Your task to perform on an android device: Do I have any events today? Image 0: 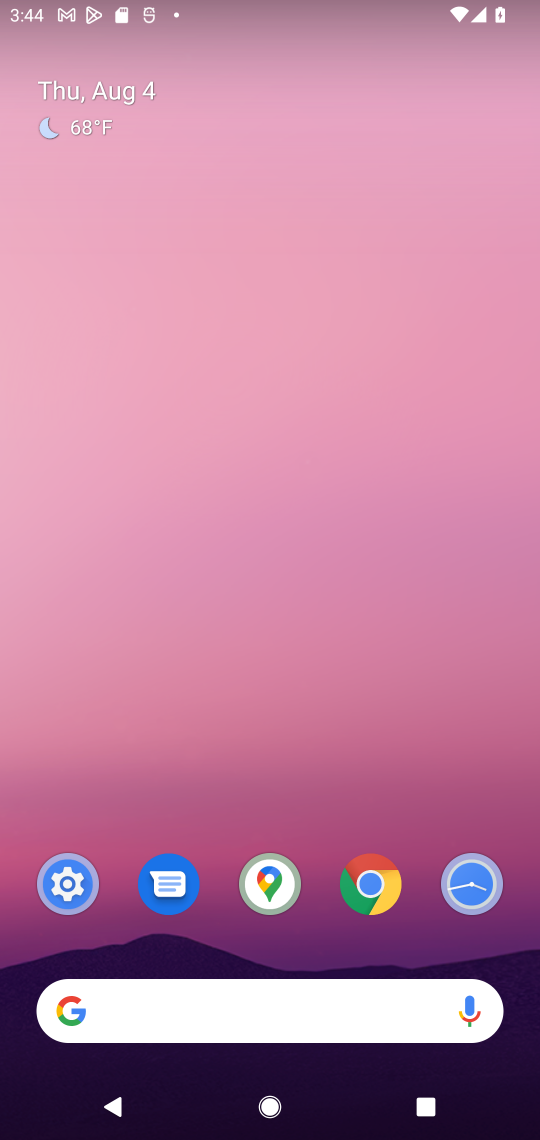
Step 0: drag from (210, 966) to (304, 176)
Your task to perform on an android device: Do I have any events today? Image 1: 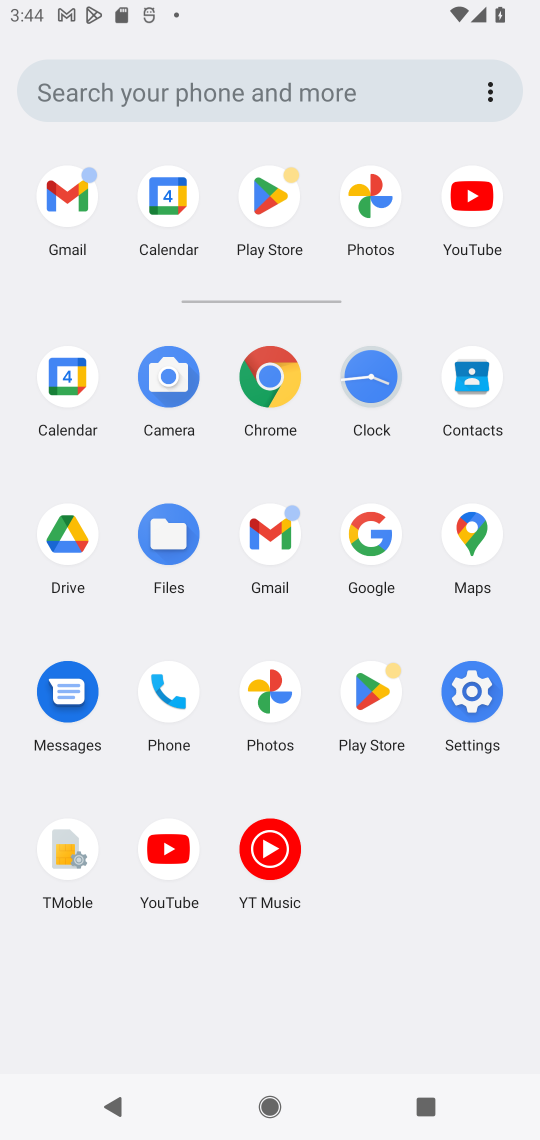
Step 1: click (94, 375)
Your task to perform on an android device: Do I have any events today? Image 2: 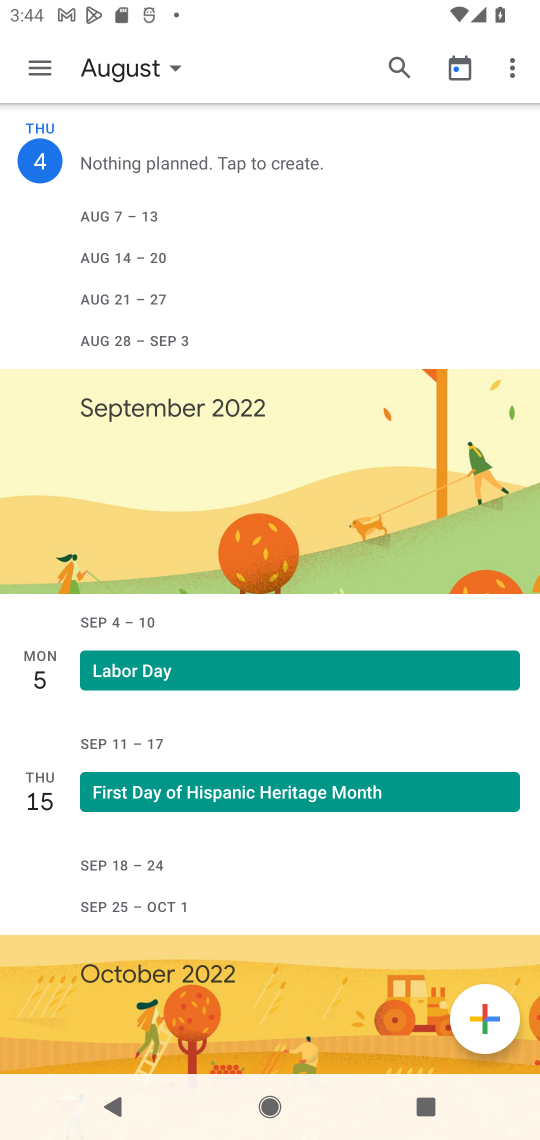
Step 2: task complete